Your task to perform on an android device: Open the map Image 0: 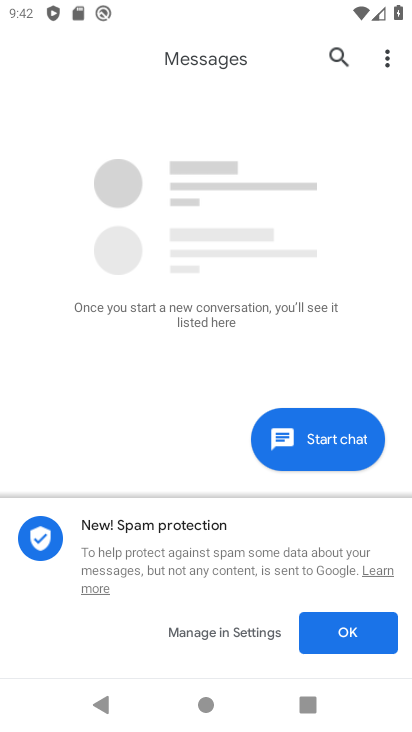
Step 0: press home button
Your task to perform on an android device: Open the map Image 1: 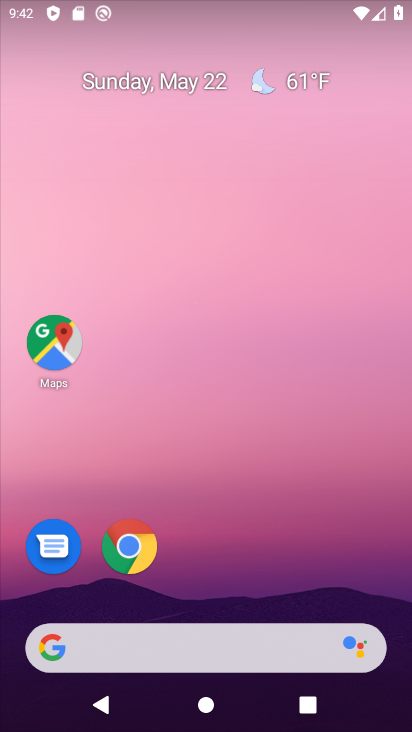
Step 1: drag from (214, 651) to (252, 24)
Your task to perform on an android device: Open the map Image 2: 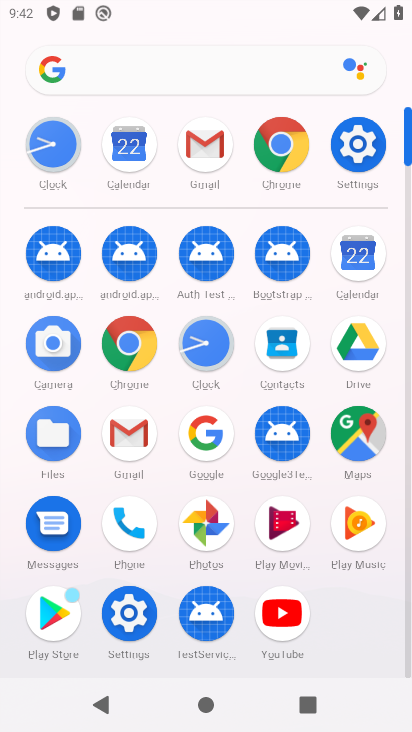
Step 2: click (345, 446)
Your task to perform on an android device: Open the map Image 3: 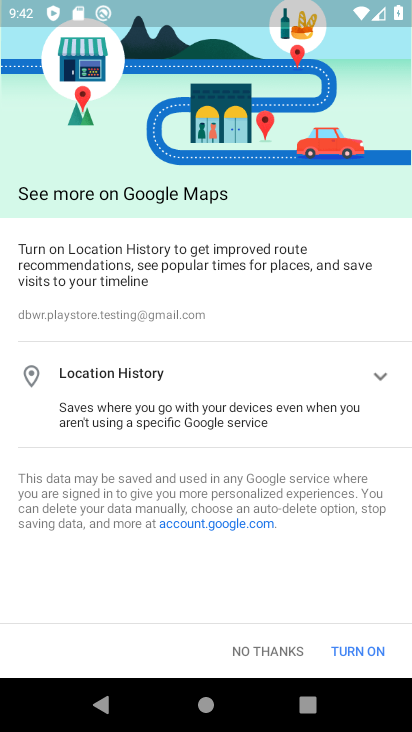
Step 3: task complete